Your task to perform on an android device: turn off notifications settings in the gmail app Image 0: 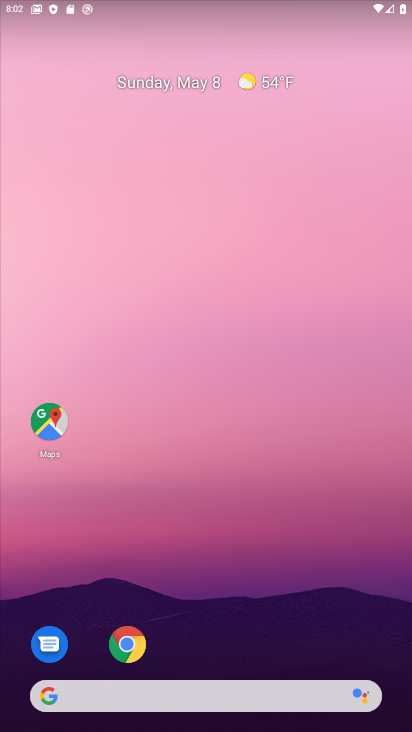
Step 0: drag from (193, 682) to (251, 243)
Your task to perform on an android device: turn off notifications settings in the gmail app Image 1: 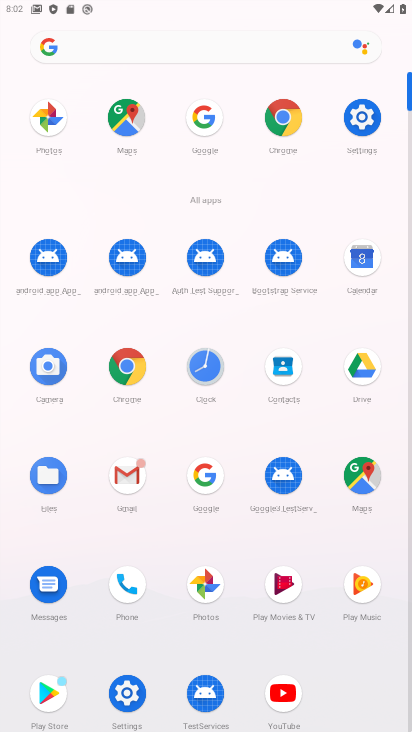
Step 1: click (131, 480)
Your task to perform on an android device: turn off notifications settings in the gmail app Image 2: 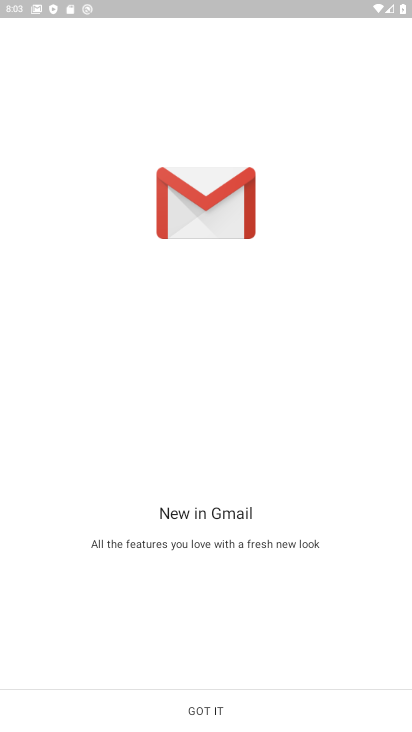
Step 2: click (210, 712)
Your task to perform on an android device: turn off notifications settings in the gmail app Image 3: 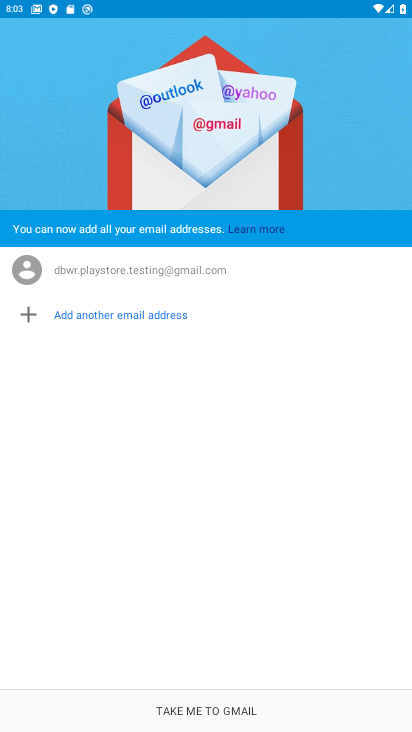
Step 3: click (201, 710)
Your task to perform on an android device: turn off notifications settings in the gmail app Image 4: 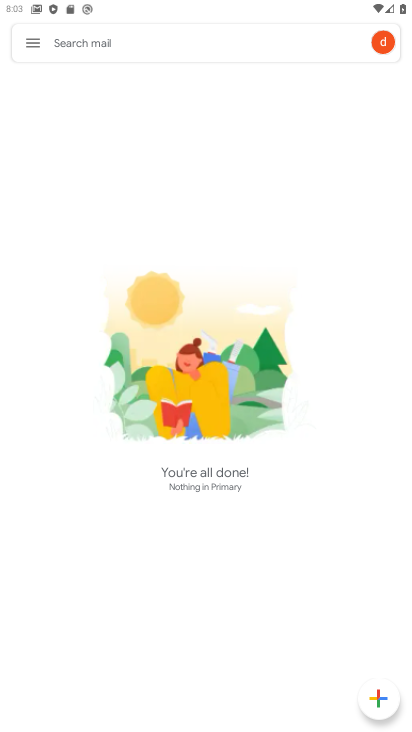
Step 4: click (37, 42)
Your task to perform on an android device: turn off notifications settings in the gmail app Image 5: 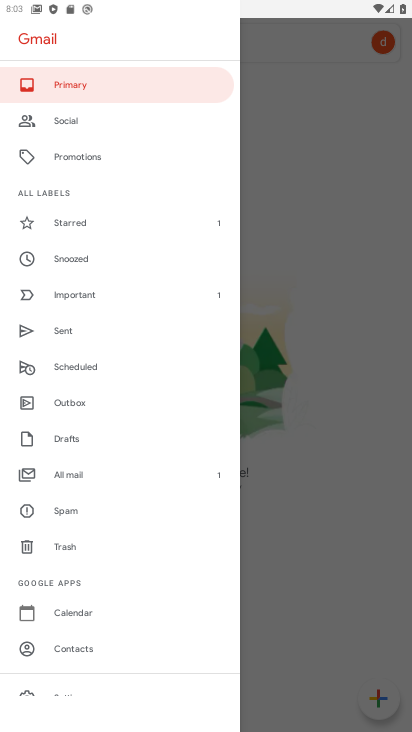
Step 5: drag from (68, 647) to (90, 367)
Your task to perform on an android device: turn off notifications settings in the gmail app Image 6: 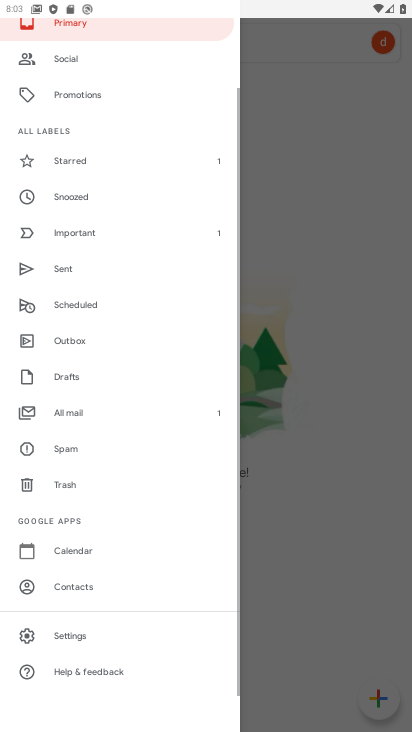
Step 6: click (64, 632)
Your task to perform on an android device: turn off notifications settings in the gmail app Image 7: 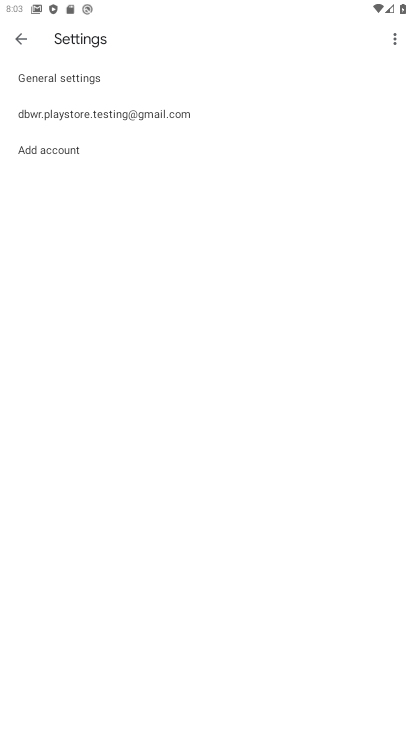
Step 7: click (107, 115)
Your task to perform on an android device: turn off notifications settings in the gmail app Image 8: 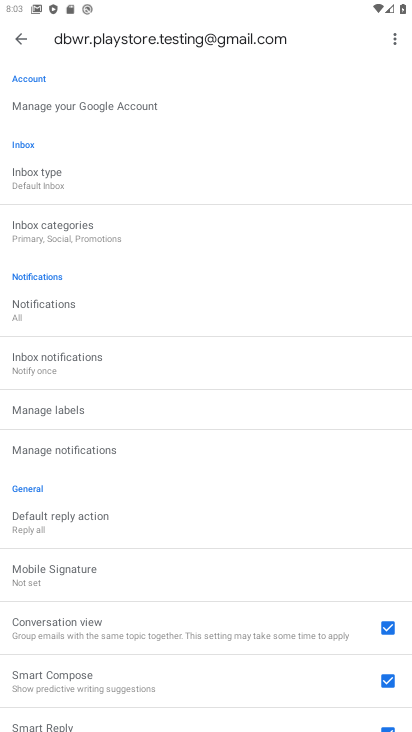
Step 8: click (26, 33)
Your task to perform on an android device: turn off notifications settings in the gmail app Image 9: 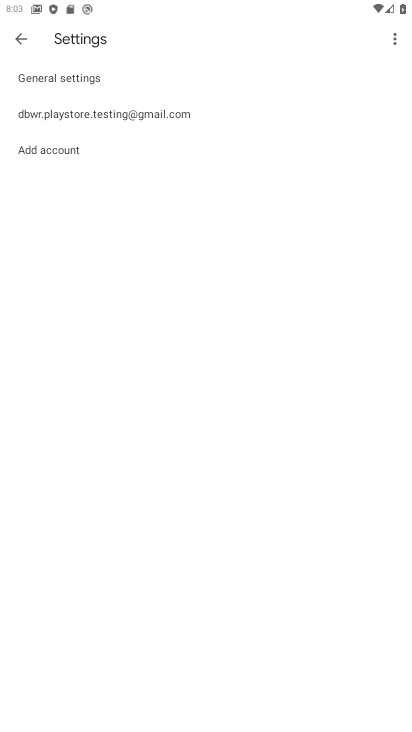
Step 9: click (73, 71)
Your task to perform on an android device: turn off notifications settings in the gmail app Image 10: 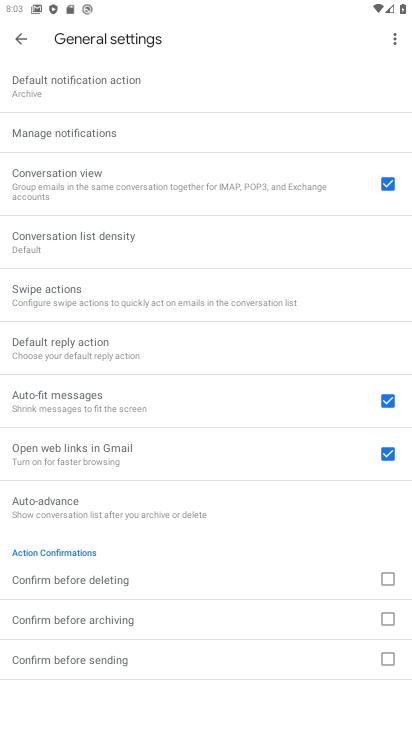
Step 10: click (54, 132)
Your task to perform on an android device: turn off notifications settings in the gmail app Image 11: 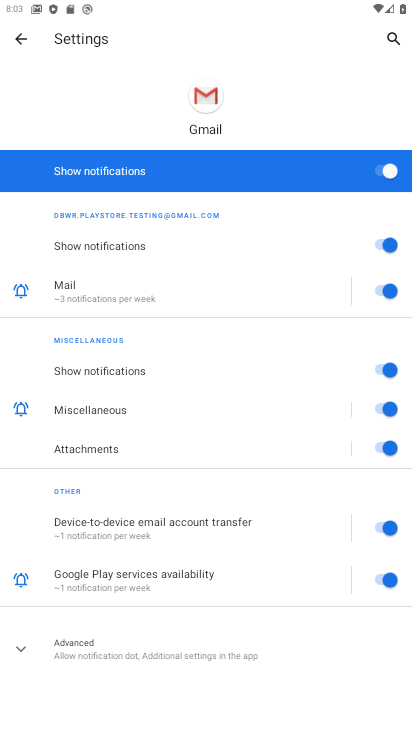
Step 11: click (384, 174)
Your task to perform on an android device: turn off notifications settings in the gmail app Image 12: 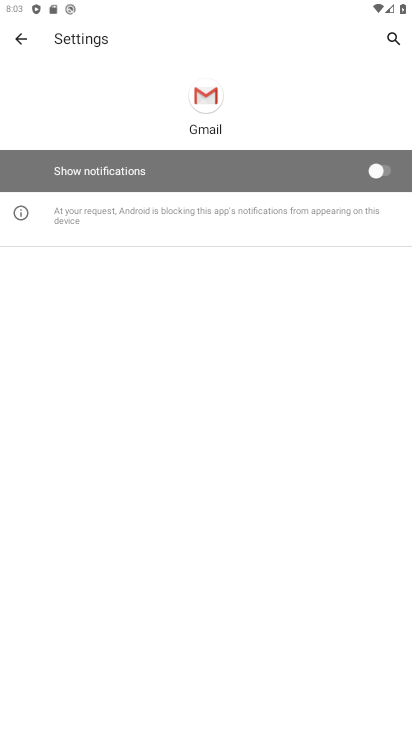
Step 12: task complete